Your task to perform on an android device: open chrome and create a bookmark for the current page Image 0: 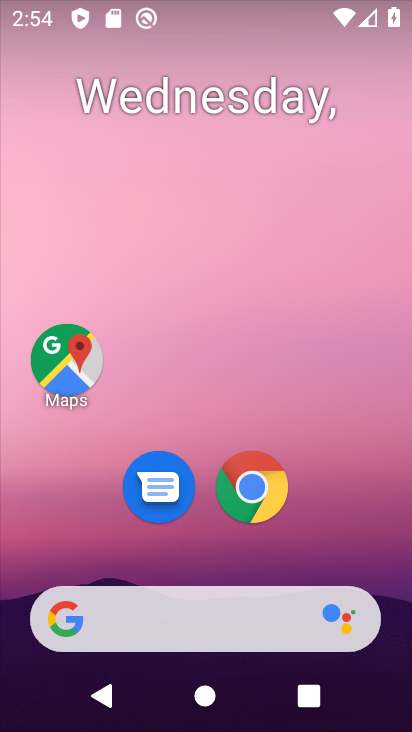
Step 0: drag from (316, 551) to (314, 211)
Your task to perform on an android device: open chrome and create a bookmark for the current page Image 1: 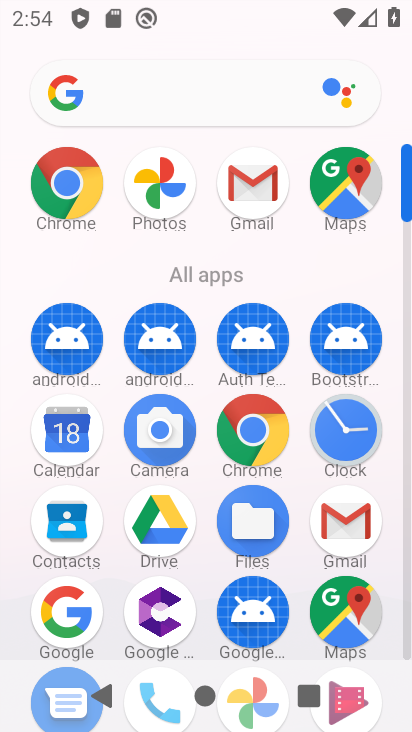
Step 1: click (264, 435)
Your task to perform on an android device: open chrome and create a bookmark for the current page Image 2: 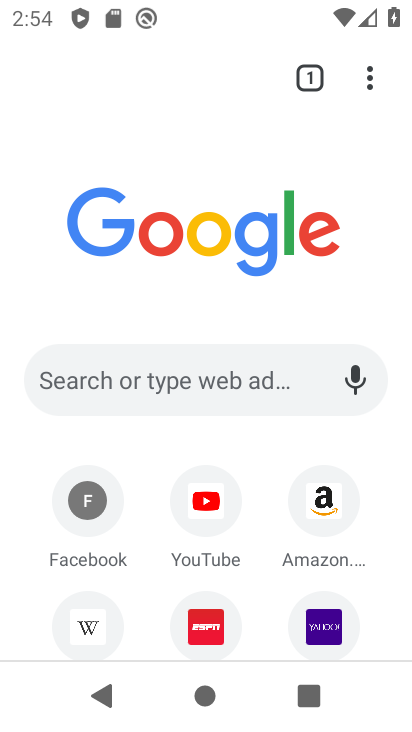
Step 2: click (369, 87)
Your task to perform on an android device: open chrome and create a bookmark for the current page Image 3: 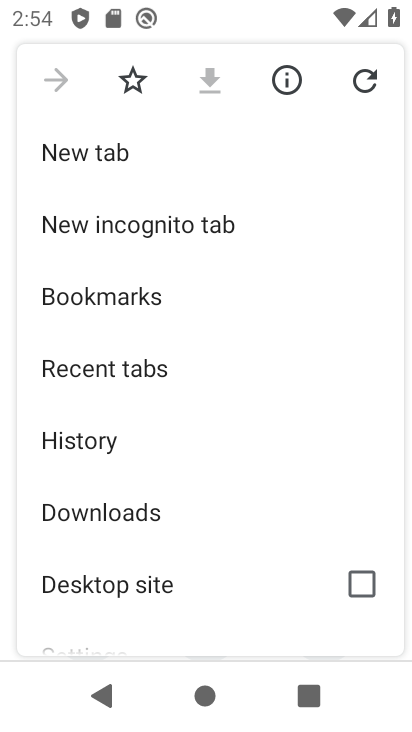
Step 3: click (134, 79)
Your task to perform on an android device: open chrome and create a bookmark for the current page Image 4: 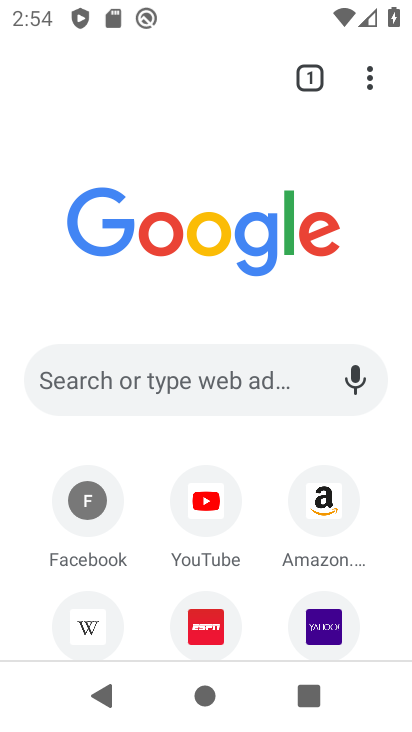
Step 4: task complete